Your task to perform on an android device: search for starred emails in the gmail app Image 0: 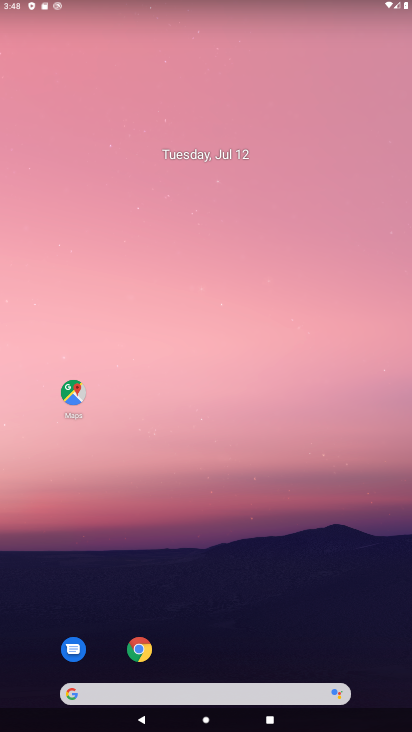
Step 0: press home button
Your task to perform on an android device: search for starred emails in the gmail app Image 1: 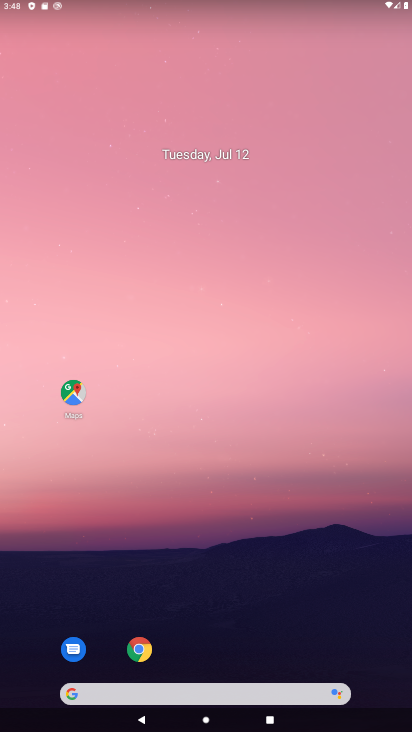
Step 1: drag from (211, 660) to (196, 3)
Your task to perform on an android device: search for starred emails in the gmail app Image 2: 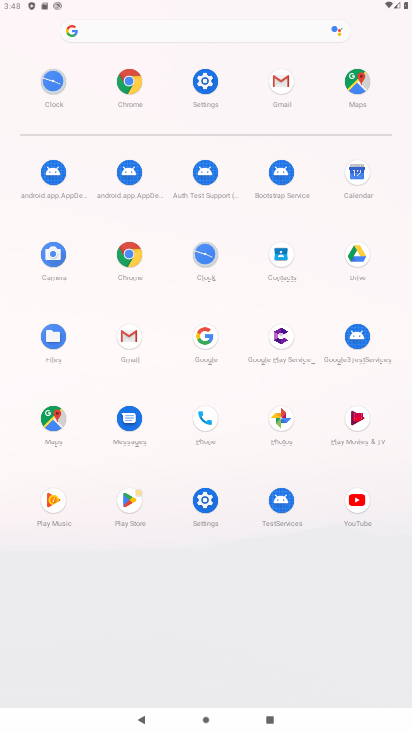
Step 2: click (281, 73)
Your task to perform on an android device: search for starred emails in the gmail app Image 3: 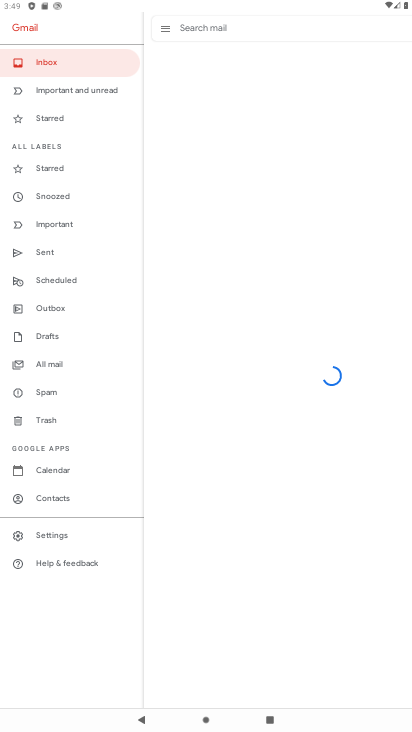
Step 3: click (69, 164)
Your task to perform on an android device: search for starred emails in the gmail app Image 4: 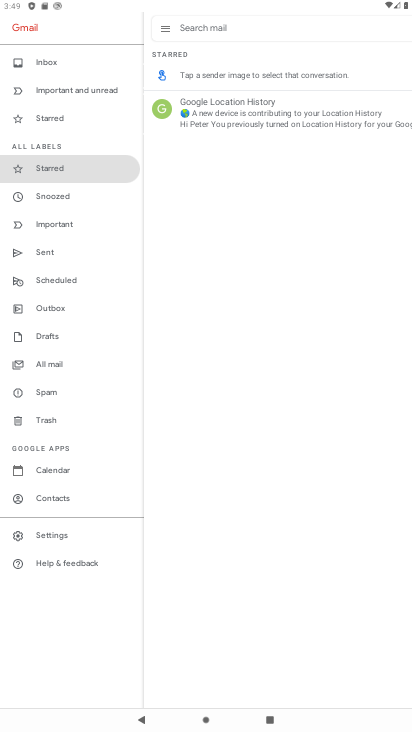
Step 4: task complete